Your task to perform on an android device: Check out the best rated 4k TV on Best Buy. Image 0: 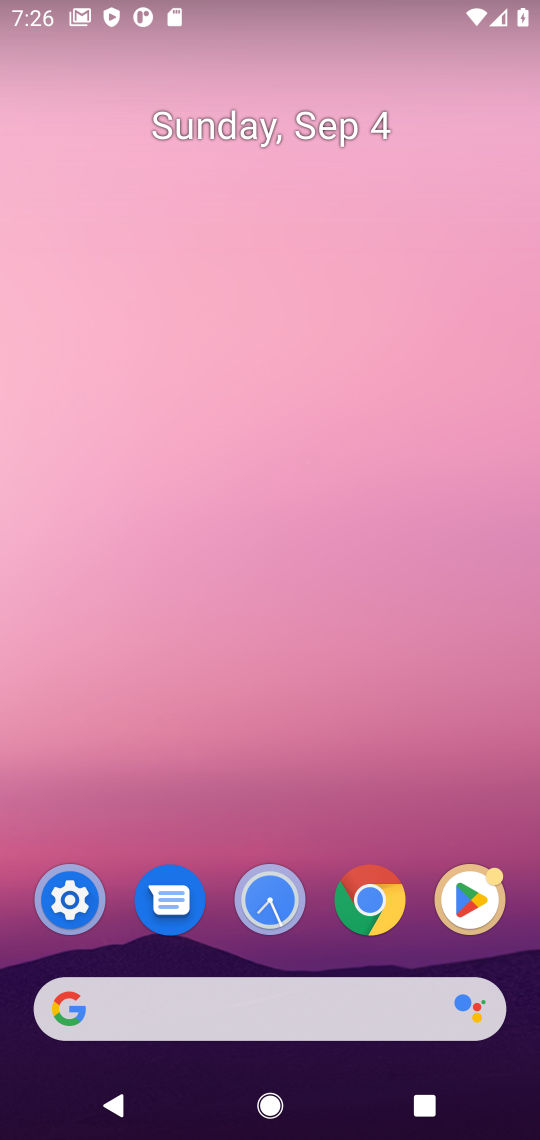
Step 0: drag from (331, 947) to (283, 293)
Your task to perform on an android device: Check out the best rated 4k TV on Best Buy. Image 1: 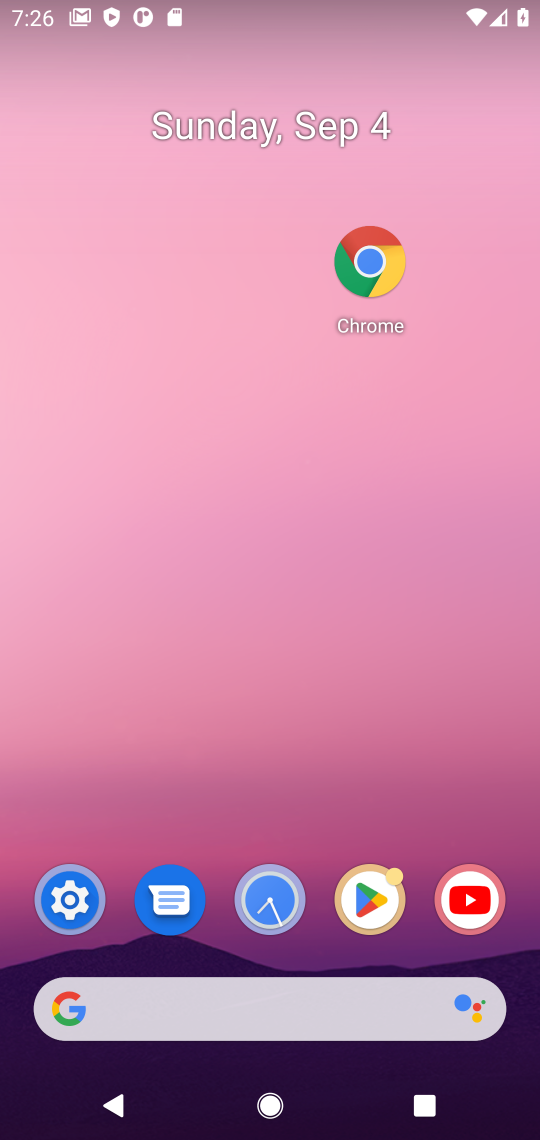
Step 1: click (370, 278)
Your task to perform on an android device: Check out the best rated 4k TV on Best Buy. Image 2: 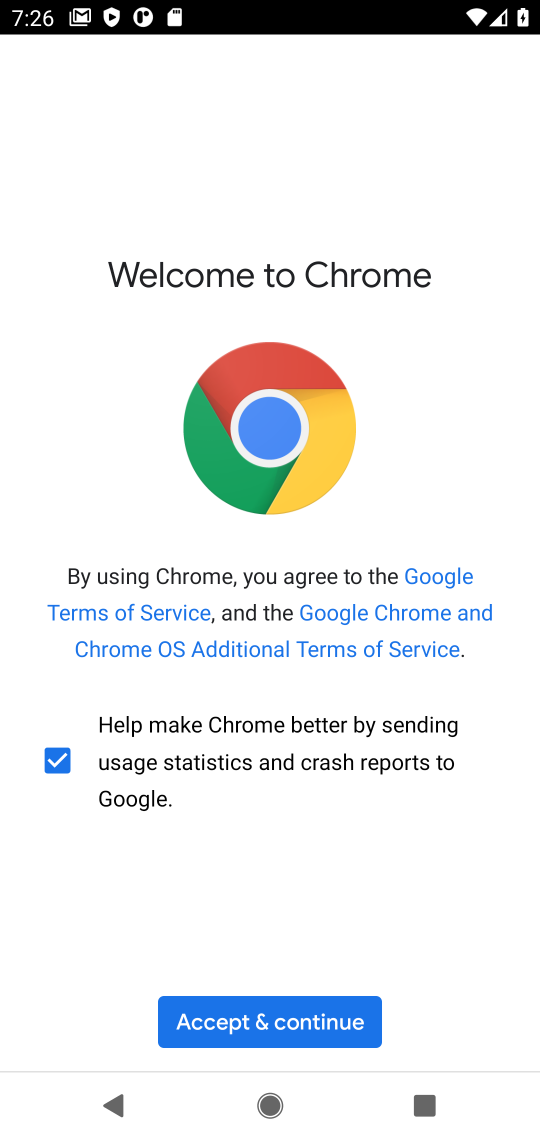
Step 2: click (333, 1037)
Your task to perform on an android device: Check out the best rated 4k TV on Best Buy. Image 3: 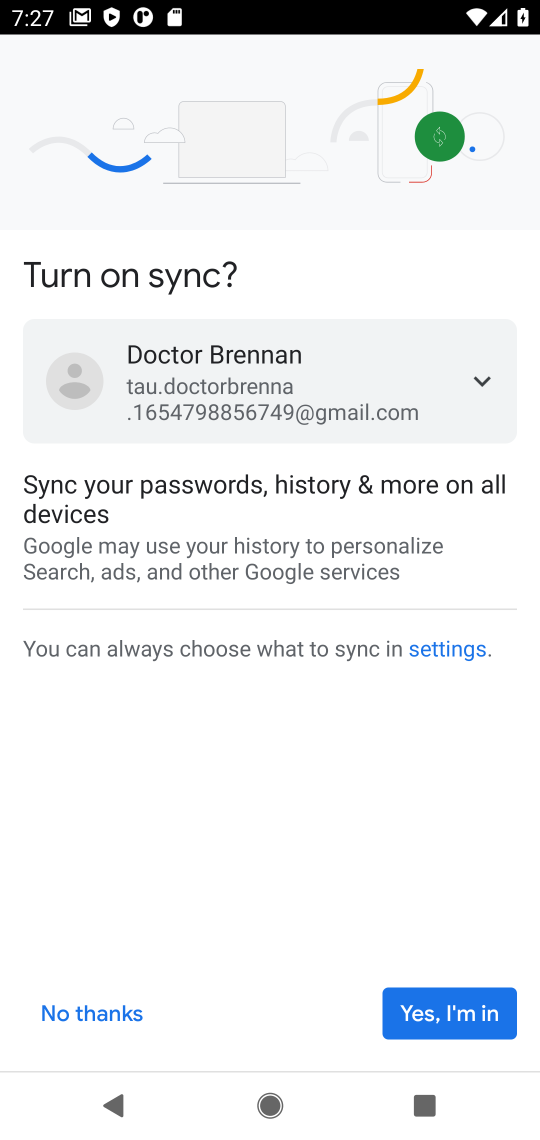
Step 3: click (432, 1023)
Your task to perform on an android device: Check out the best rated 4k TV on Best Buy. Image 4: 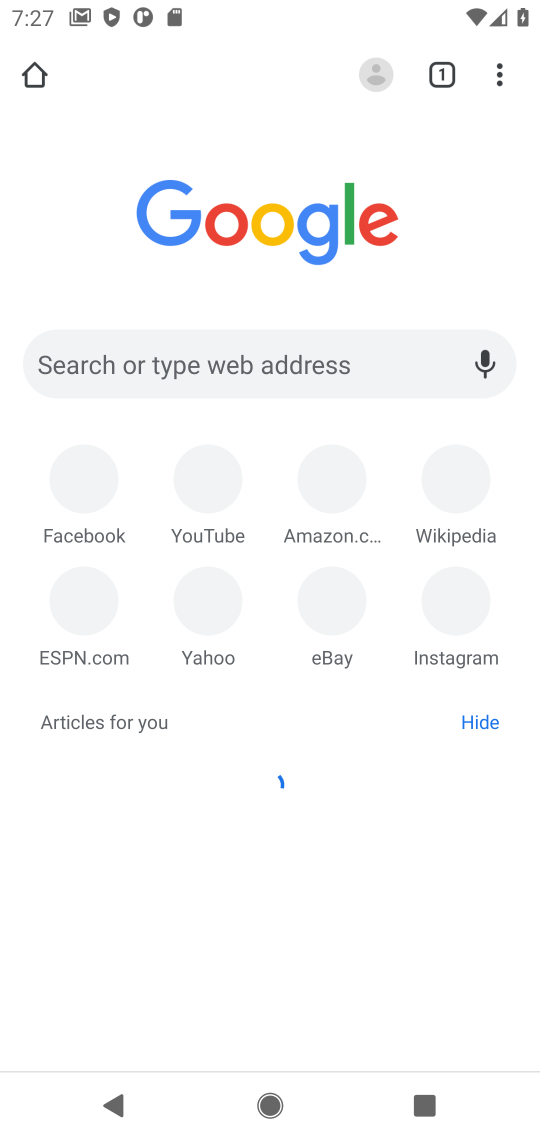
Step 4: click (213, 340)
Your task to perform on an android device: Check out the best rated 4k TV on Best Buy. Image 5: 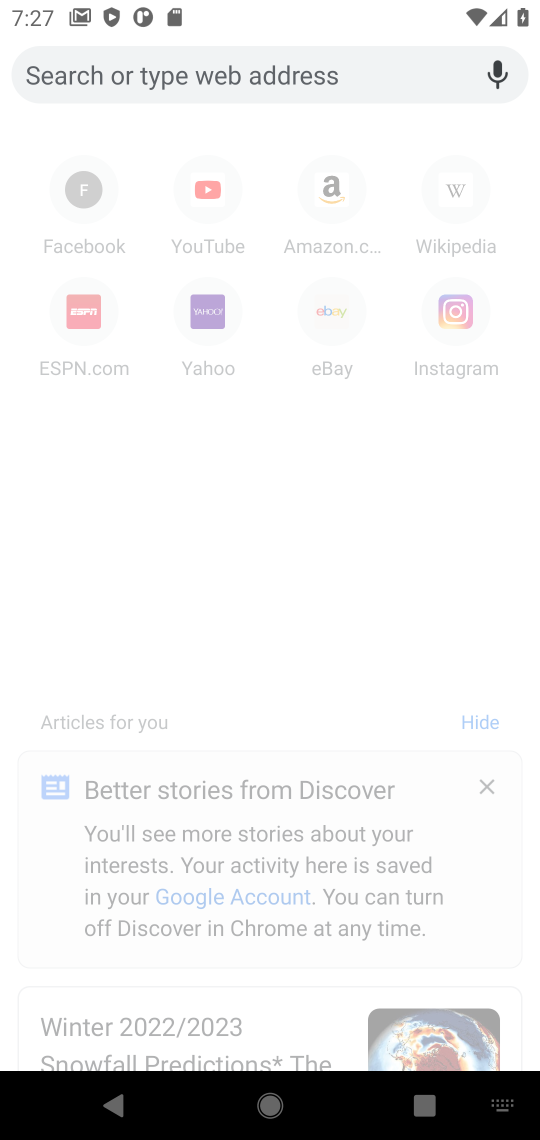
Step 5: type "best buy"
Your task to perform on an android device: Check out the best rated 4k TV on Best Buy. Image 6: 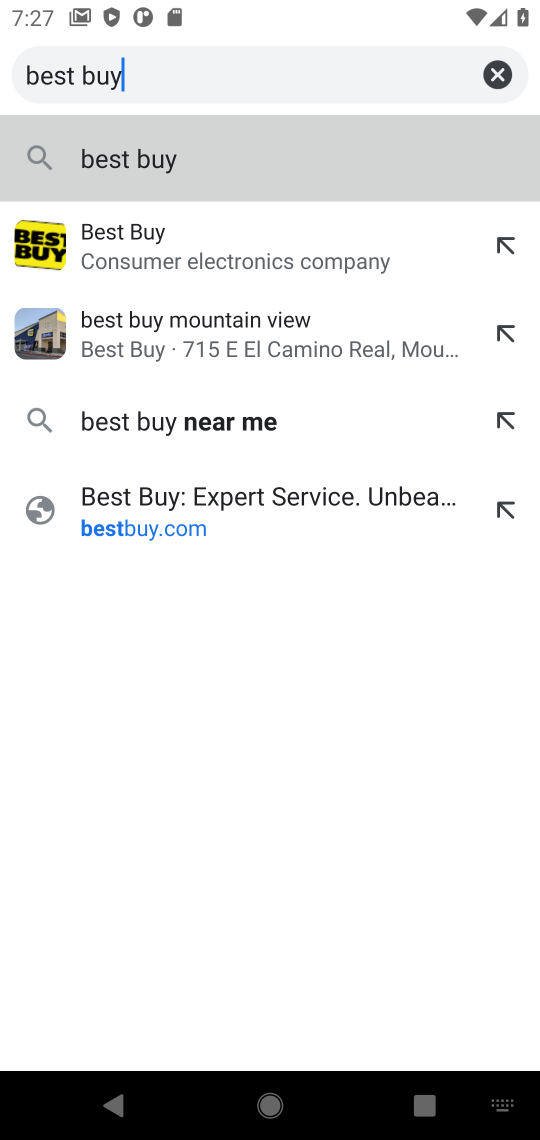
Step 6: click (107, 181)
Your task to perform on an android device: Check out the best rated 4k TV on Best Buy. Image 7: 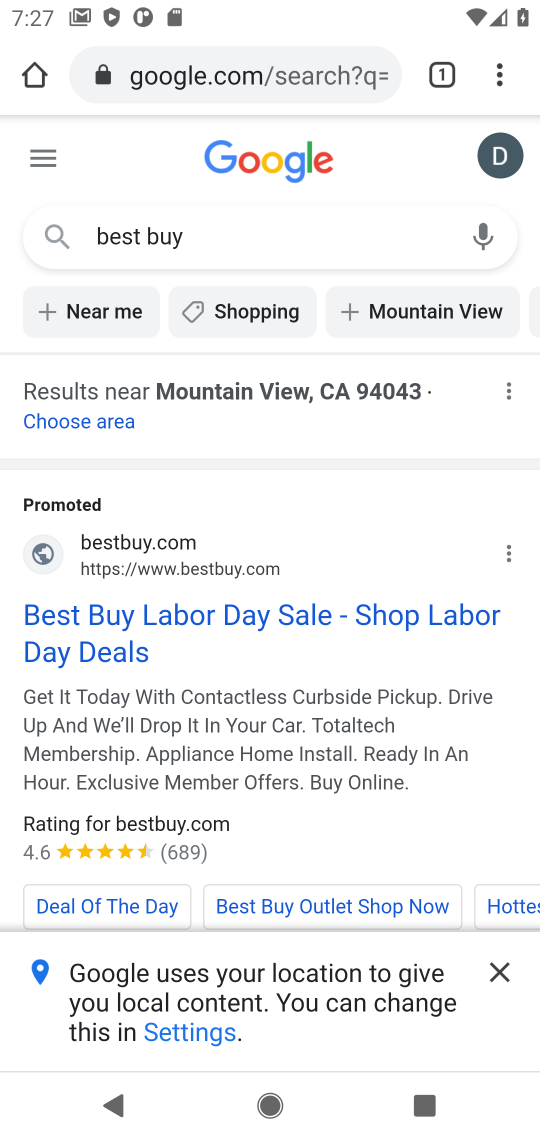
Step 7: click (499, 971)
Your task to perform on an android device: Check out the best rated 4k TV on Best Buy. Image 8: 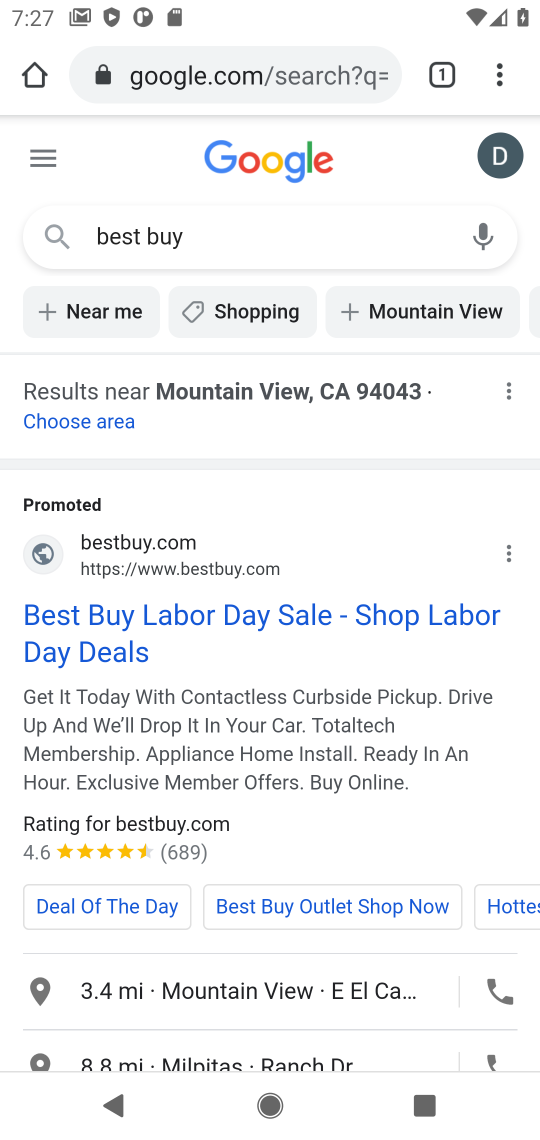
Step 8: click (382, 605)
Your task to perform on an android device: Check out the best rated 4k TV on Best Buy. Image 9: 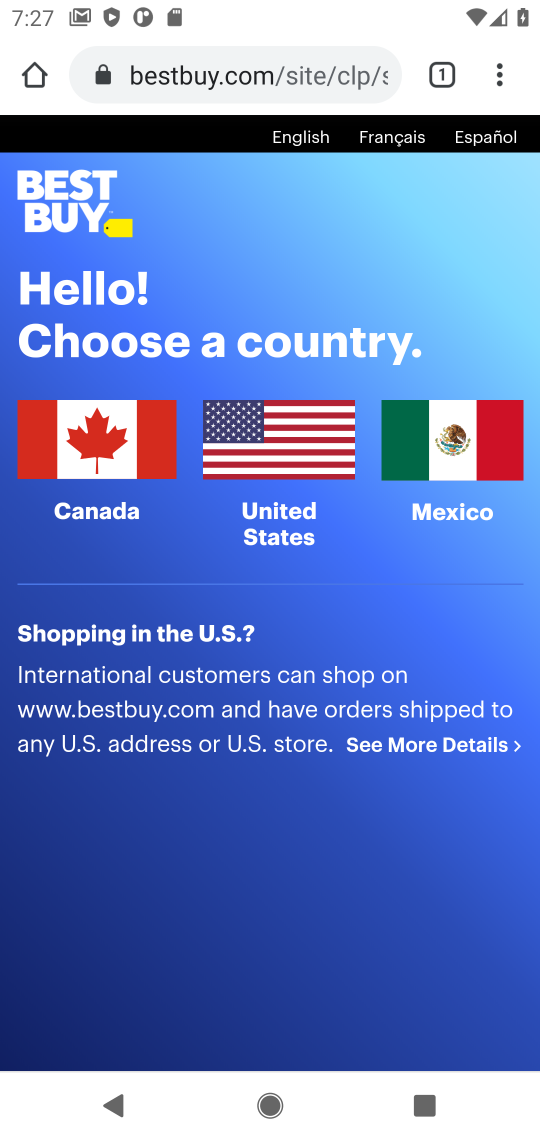
Step 9: drag from (219, 433) to (23, 433)
Your task to perform on an android device: Check out the best rated 4k TV on Best Buy. Image 10: 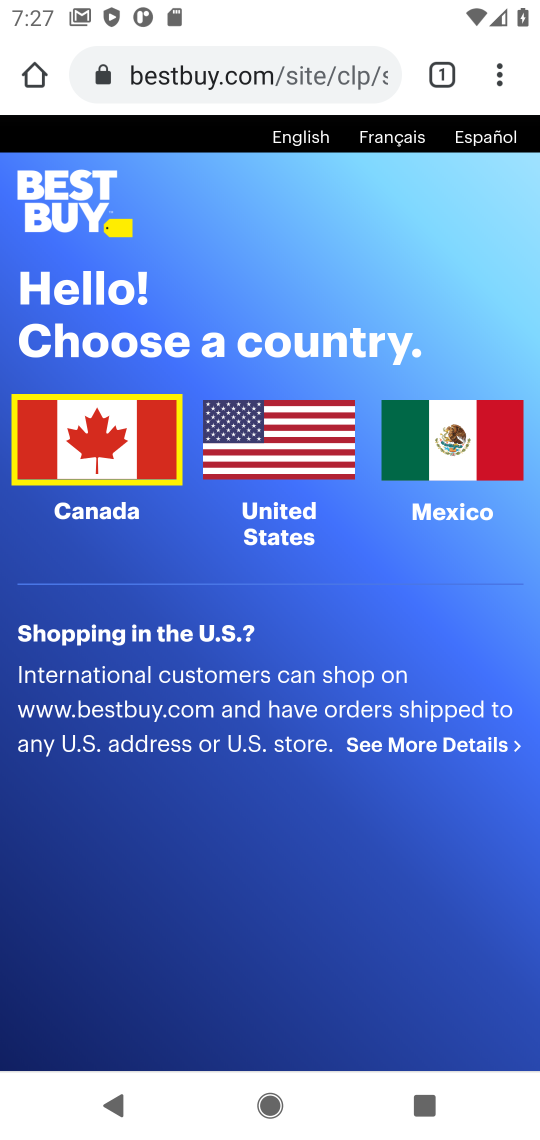
Step 10: click (264, 433)
Your task to perform on an android device: Check out the best rated 4k TV on Best Buy. Image 11: 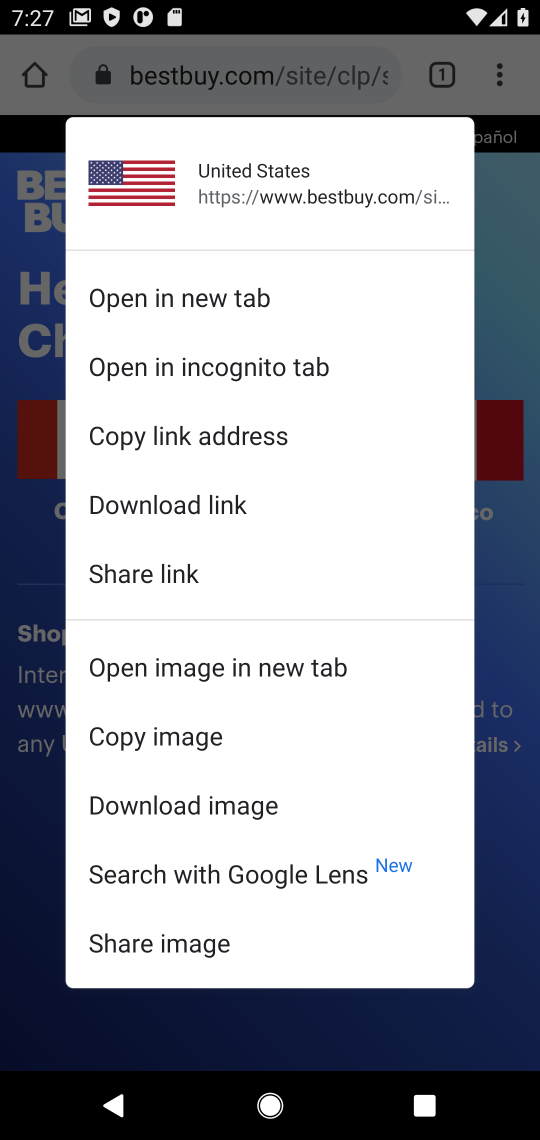
Step 11: click (521, 575)
Your task to perform on an android device: Check out the best rated 4k TV on Best Buy. Image 12: 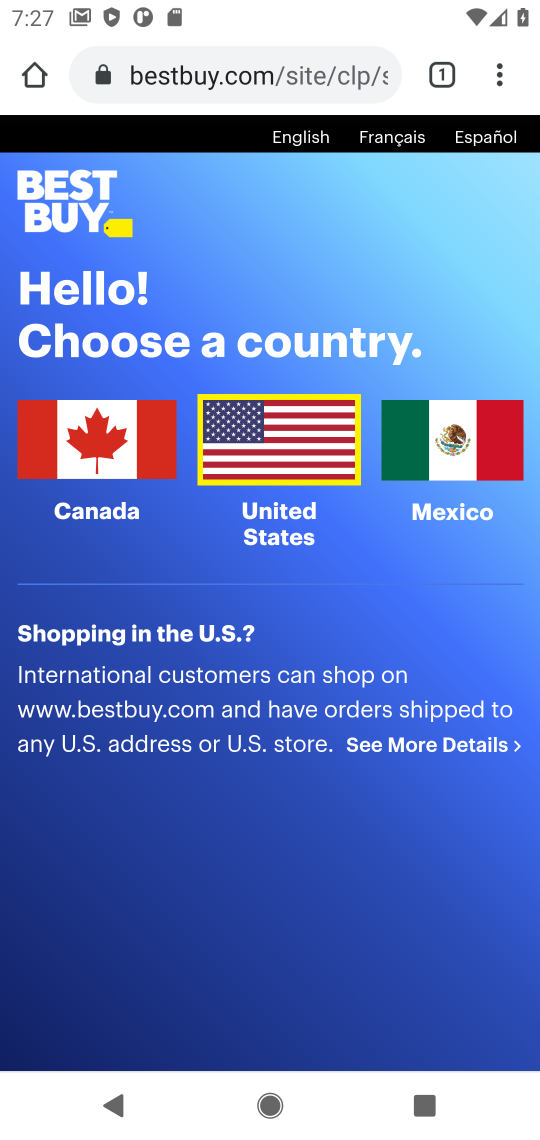
Step 12: click (324, 498)
Your task to perform on an android device: Check out the best rated 4k TV on Best Buy. Image 13: 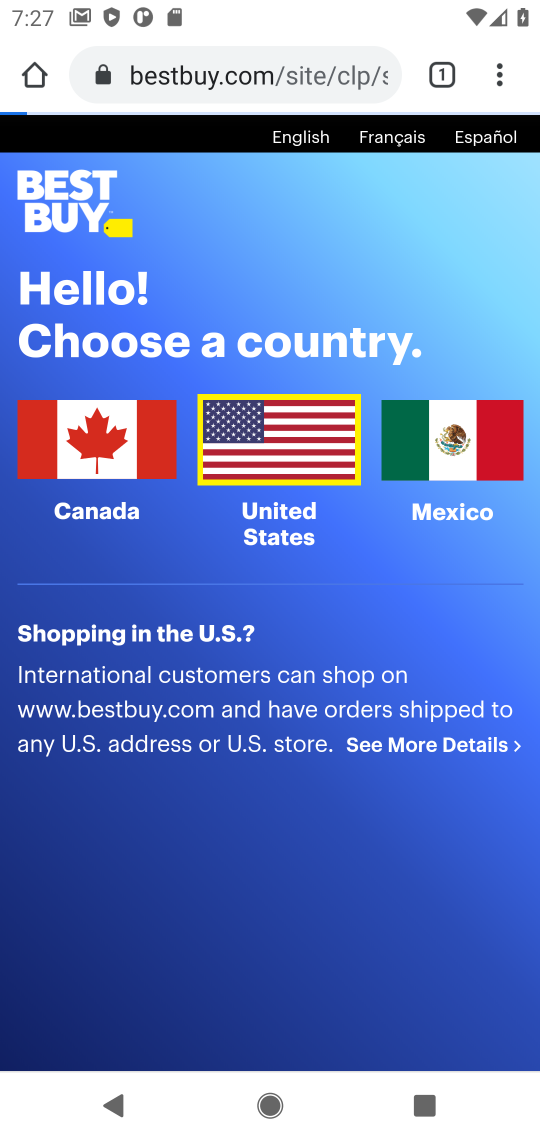
Step 13: click (324, 498)
Your task to perform on an android device: Check out the best rated 4k TV on Best Buy. Image 14: 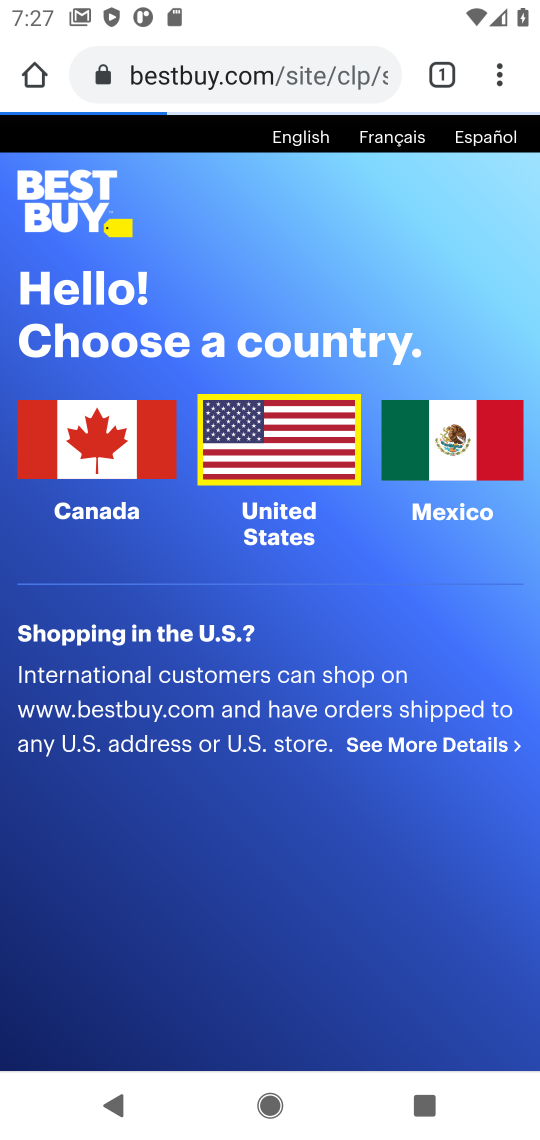
Step 14: click (299, 468)
Your task to perform on an android device: Check out the best rated 4k TV on Best Buy. Image 15: 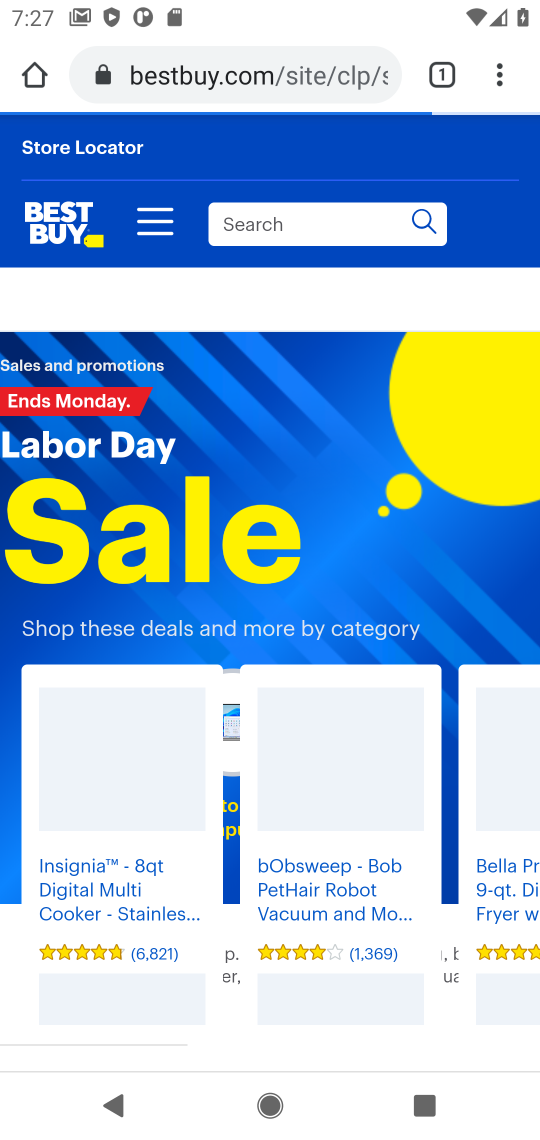
Step 15: click (283, 239)
Your task to perform on an android device: Check out the best rated 4k TV on Best Buy. Image 16: 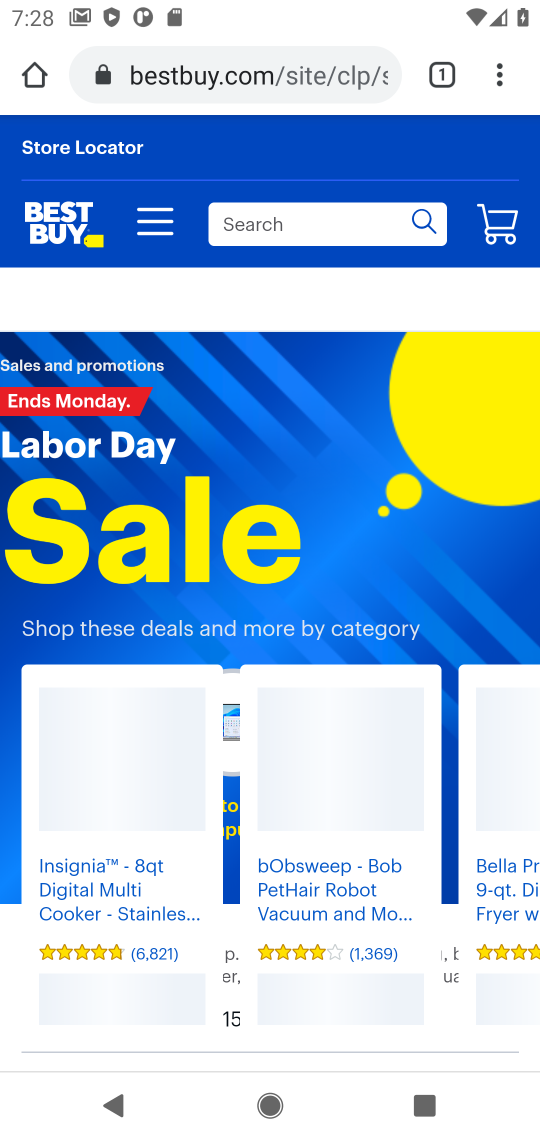
Step 16: click (275, 227)
Your task to perform on an android device: Check out the best rated 4k TV on Best Buy. Image 17: 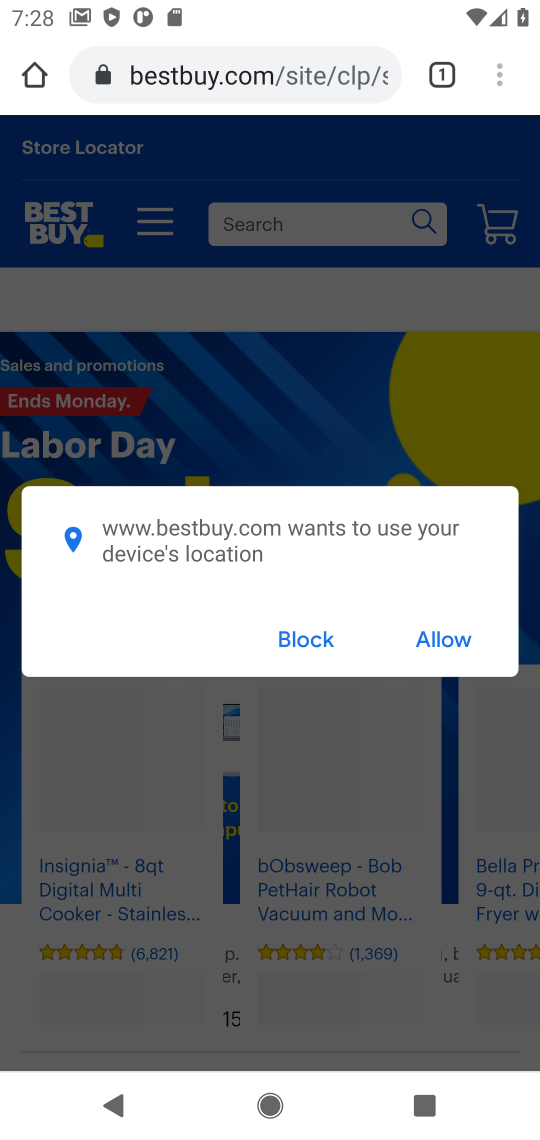
Step 17: click (449, 642)
Your task to perform on an android device: Check out the best rated 4k TV on Best Buy. Image 18: 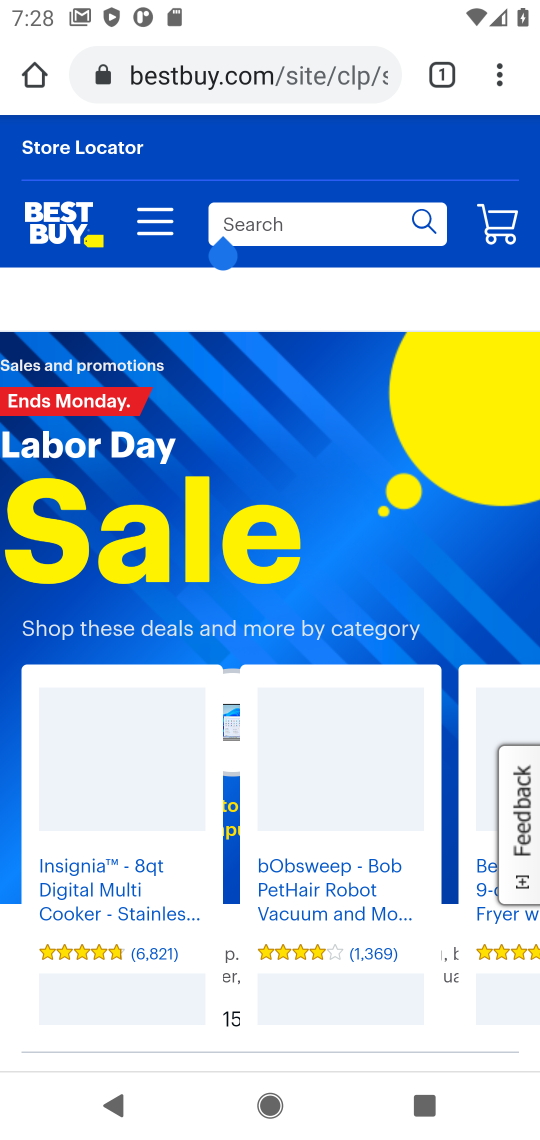
Step 18: click (269, 224)
Your task to perform on an android device: Check out the best rated 4k TV on Best Buy. Image 19: 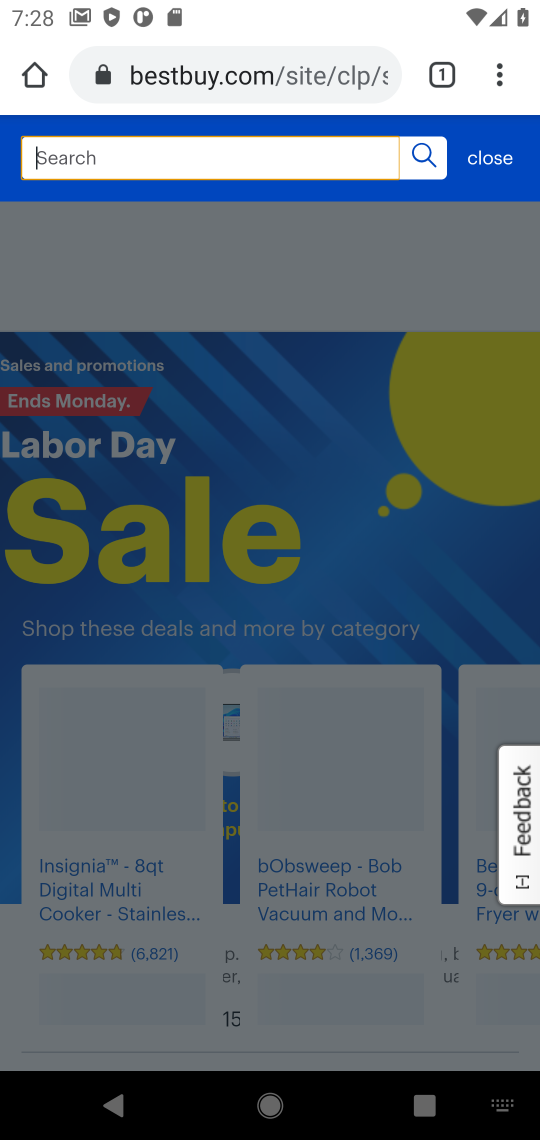
Step 19: type "the best 4k tv"
Your task to perform on an android device: Check out the best rated 4k TV on Best Buy. Image 20: 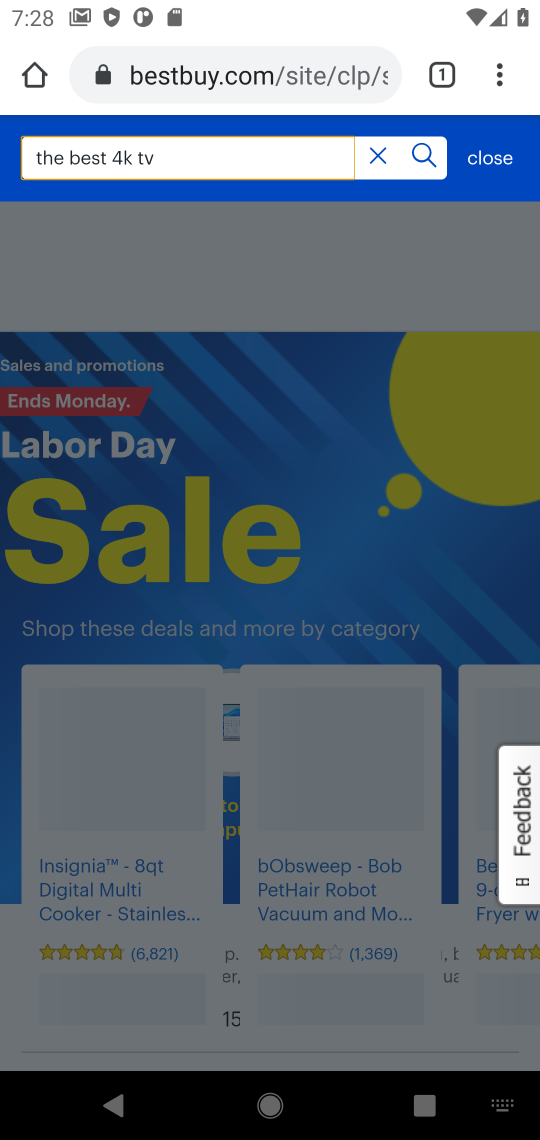
Step 20: click (427, 151)
Your task to perform on an android device: Check out the best rated 4k TV on Best Buy. Image 21: 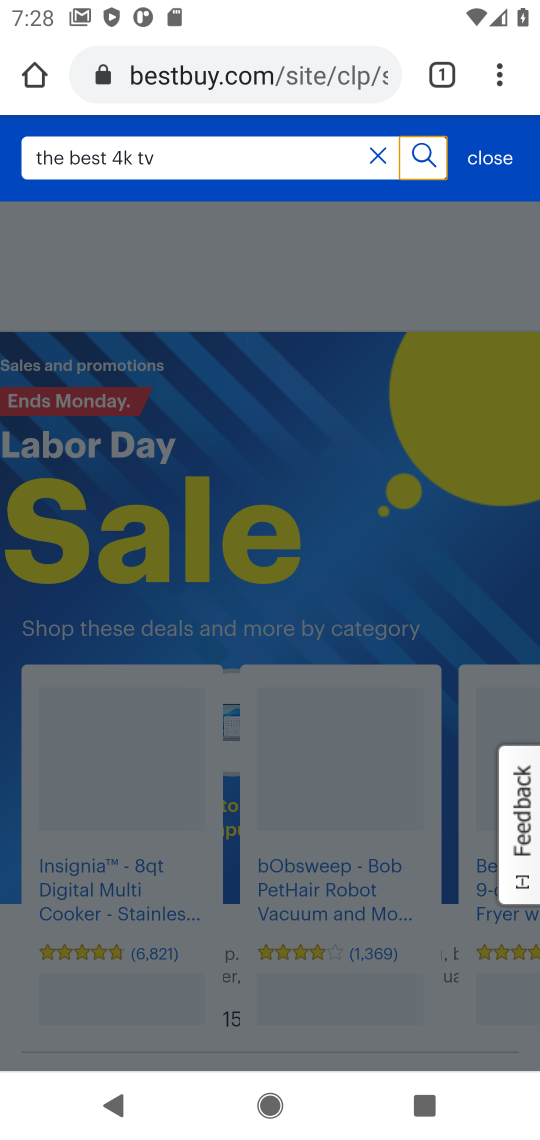
Step 21: click (427, 151)
Your task to perform on an android device: Check out the best rated 4k TV on Best Buy. Image 22: 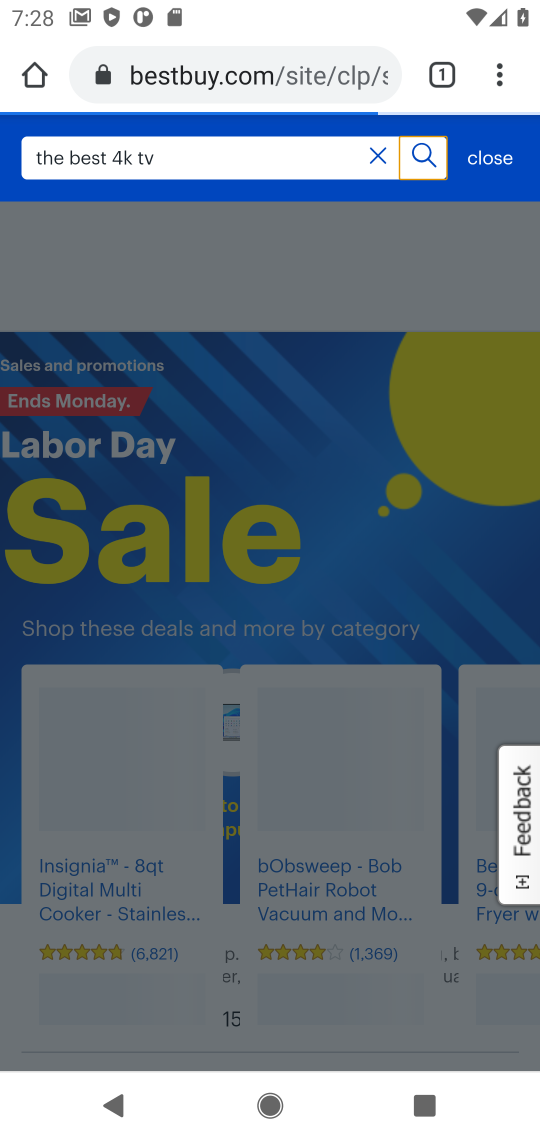
Step 22: click (422, 165)
Your task to perform on an android device: Check out the best rated 4k TV on Best Buy. Image 23: 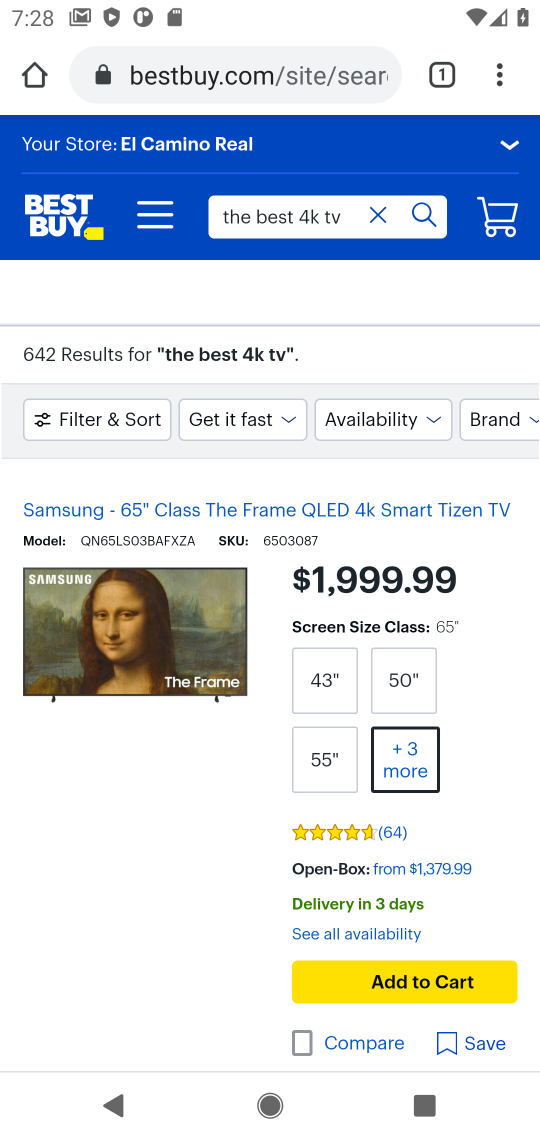
Step 23: task complete